Your task to perform on an android device: open app "WhatsApp Messenger" (install if not already installed), go to login, and select forgot password Image 0: 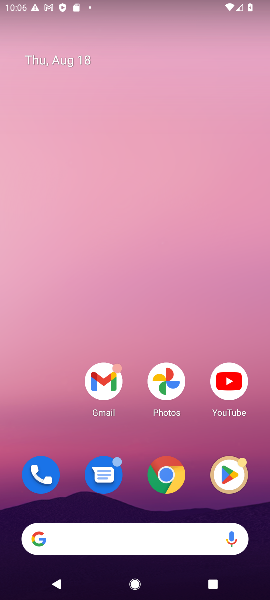
Step 0: drag from (136, 532) to (258, 321)
Your task to perform on an android device: open app "WhatsApp Messenger" (install if not already installed), go to login, and select forgot password Image 1: 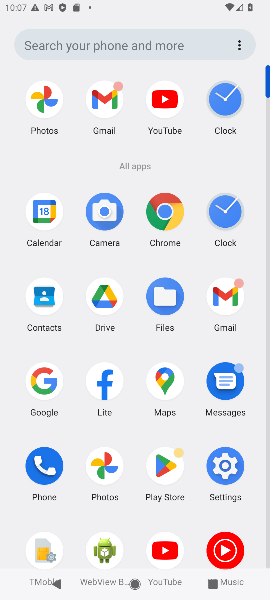
Step 1: click (171, 469)
Your task to perform on an android device: open app "WhatsApp Messenger" (install if not already installed), go to login, and select forgot password Image 2: 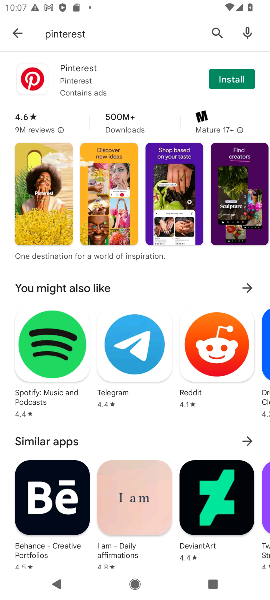
Step 2: click (16, 28)
Your task to perform on an android device: open app "WhatsApp Messenger" (install if not already installed), go to login, and select forgot password Image 3: 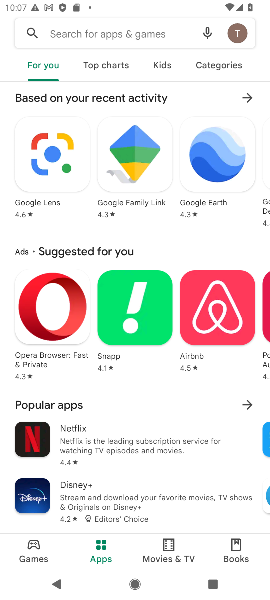
Step 3: click (140, 39)
Your task to perform on an android device: open app "WhatsApp Messenger" (install if not already installed), go to login, and select forgot password Image 4: 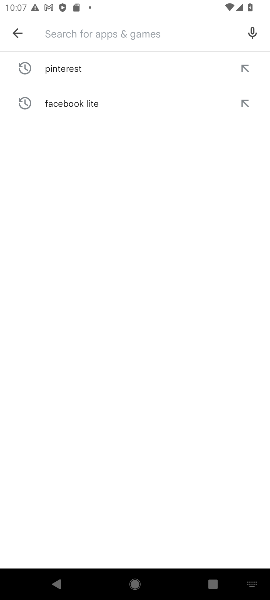
Step 4: type "WhatsApp Messenger"
Your task to perform on an android device: open app "WhatsApp Messenger" (install if not already installed), go to login, and select forgot password Image 5: 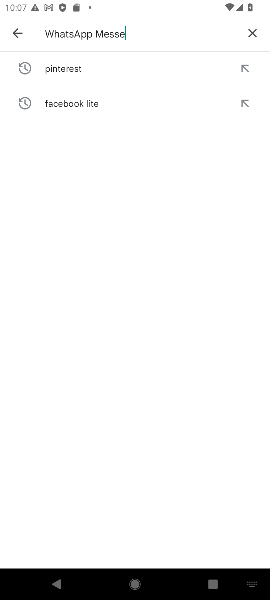
Step 5: type ""
Your task to perform on an android device: open app "WhatsApp Messenger" (install if not already installed), go to login, and select forgot password Image 6: 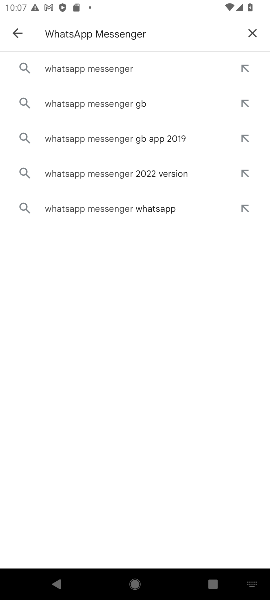
Step 6: click (83, 76)
Your task to perform on an android device: open app "WhatsApp Messenger" (install if not already installed), go to login, and select forgot password Image 7: 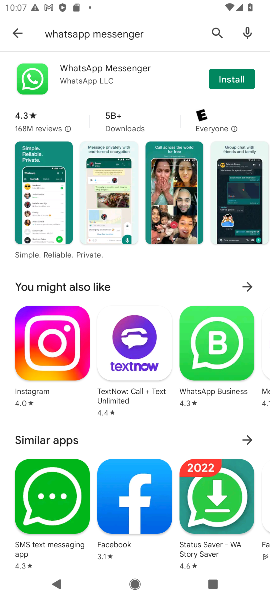
Step 7: click (237, 74)
Your task to perform on an android device: open app "WhatsApp Messenger" (install if not already installed), go to login, and select forgot password Image 8: 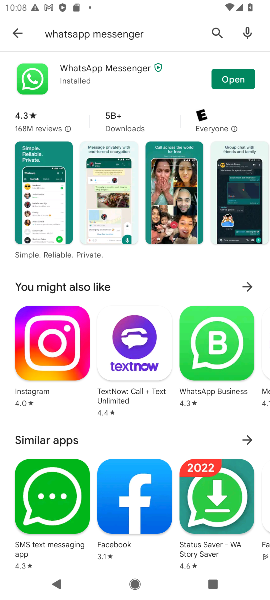
Step 8: click (229, 77)
Your task to perform on an android device: open app "WhatsApp Messenger" (install if not already installed), go to login, and select forgot password Image 9: 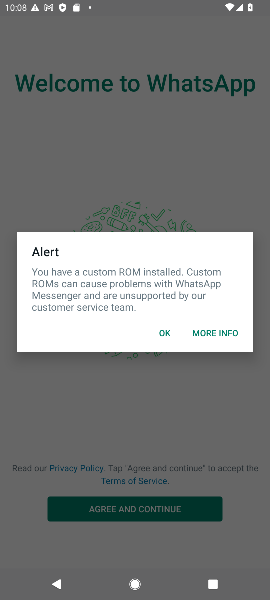
Step 9: click (163, 334)
Your task to perform on an android device: open app "WhatsApp Messenger" (install if not already installed), go to login, and select forgot password Image 10: 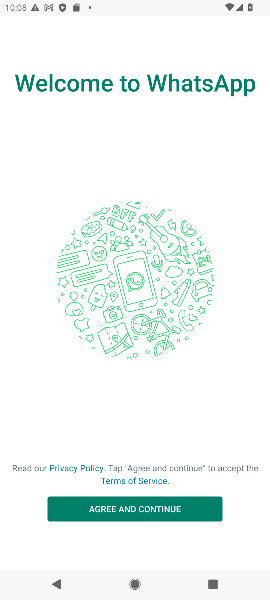
Step 10: click (149, 514)
Your task to perform on an android device: open app "WhatsApp Messenger" (install if not already installed), go to login, and select forgot password Image 11: 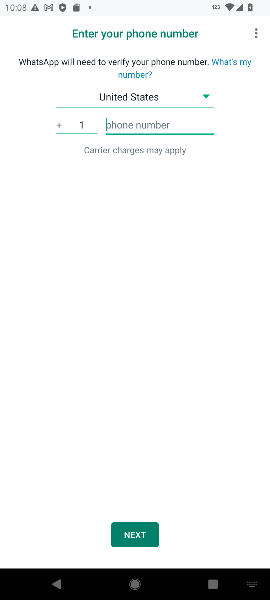
Step 11: task complete